Your task to perform on an android device: refresh tabs in the chrome app Image 0: 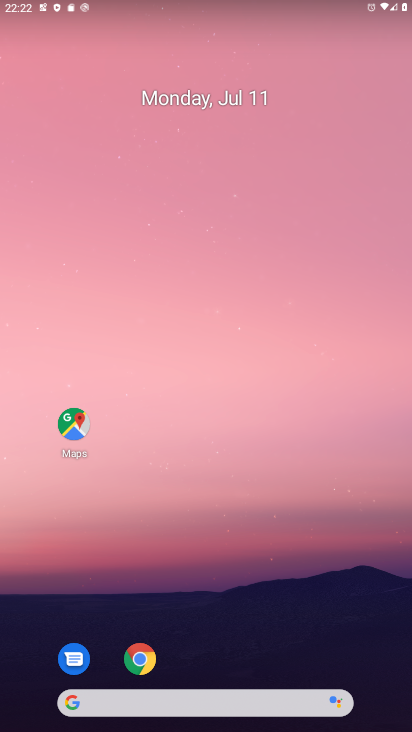
Step 0: drag from (186, 576) to (36, 4)
Your task to perform on an android device: refresh tabs in the chrome app Image 1: 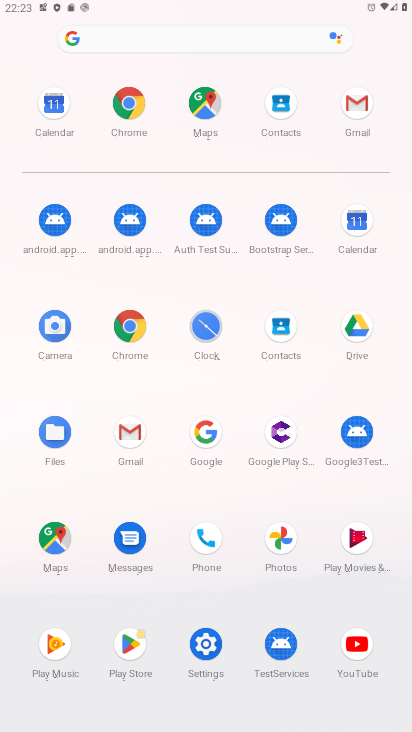
Step 1: click (119, 331)
Your task to perform on an android device: refresh tabs in the chrome app Image 2: 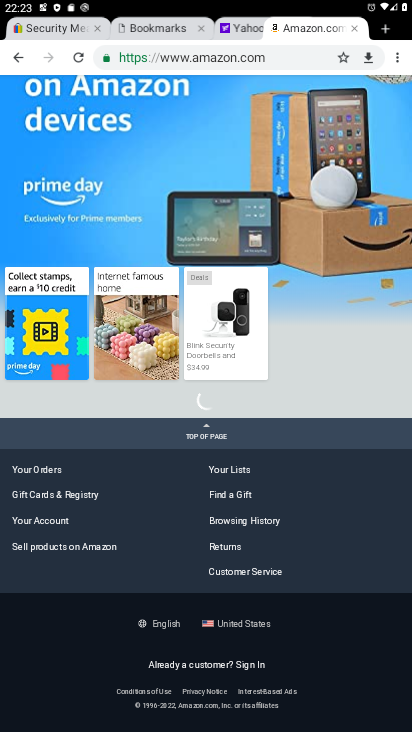
Step 2: drag from (221, 268) to (350, 643)
Your task to perform on an android device: refresh tabs in the chrome app Image 3: 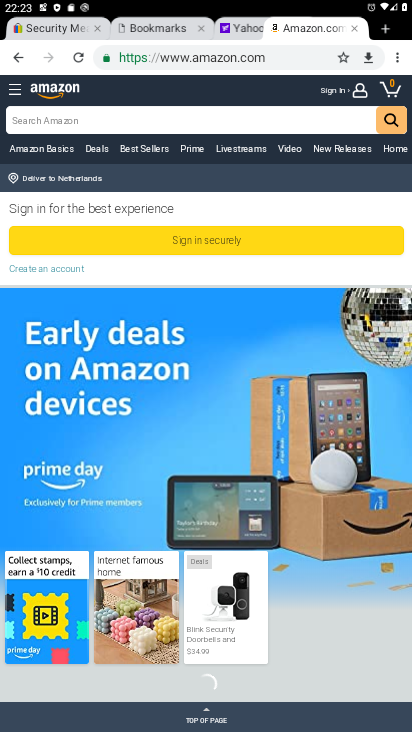
Step 3: click (396, 53)
Your task to perform on an android device: refresh tabs in the chrome app Image 4: 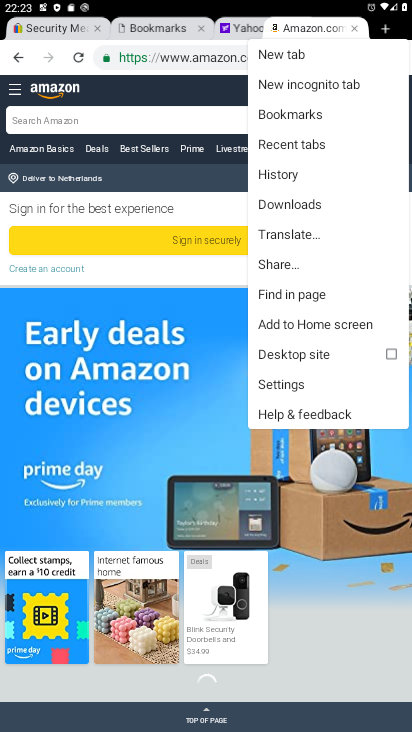
Step 4: click (160, 95)
Your task to perform on an android device: refresh tabs in the chrome app Image 5: 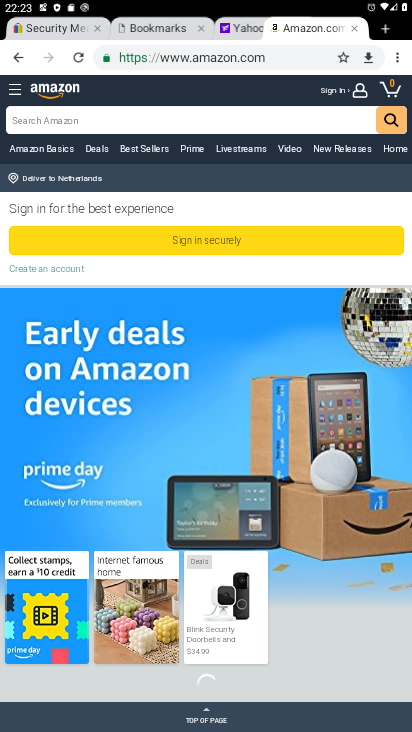
Step 5: click (73, 57)
Your task to perform on an android device: refresh tabs in the chrome app Image 6: 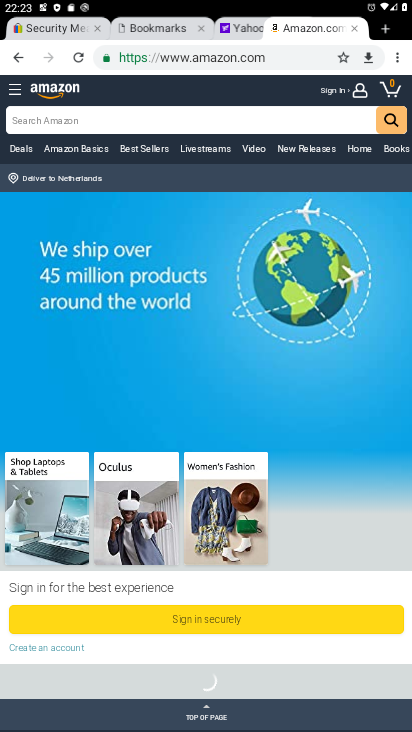
Step 6: click (76, 60)
Your task to perform on an android device: refresh tabs in the chrome app Image 7: 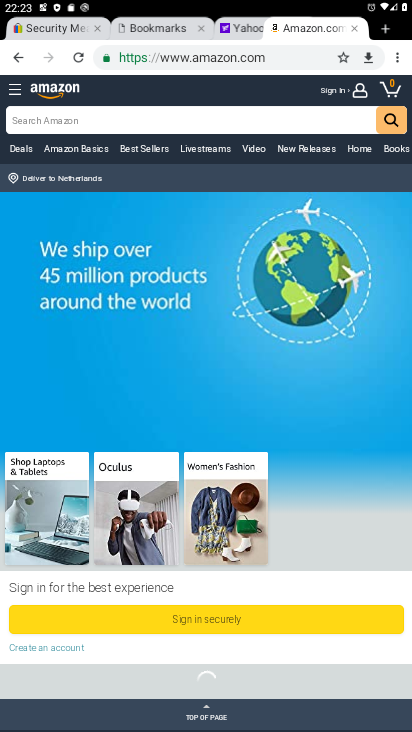
Step 7: task complete